Your task to perform on an android device: Go to CNN.com Image 0: 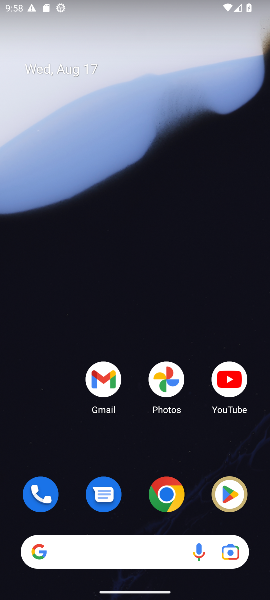
Step 0: drag from (154, 446) to (162, 28)
Your task to perform on an android device: Go to CNN.com Image 1: 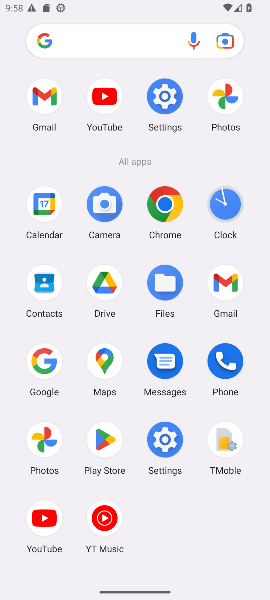
Step 1: click (168, 202)
Your task to perform on an android device: Go to CNN.com Image 2: 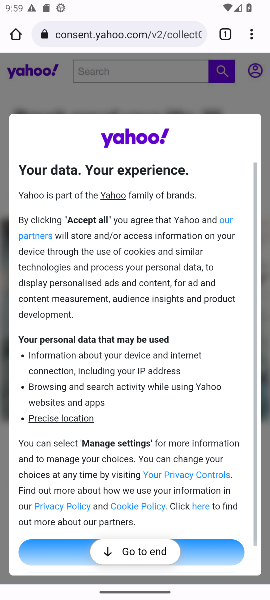
Step 2: drag from (134, 506) to (139, 169)
Your task to perform on an android device: Go to CNN.com Image 3: 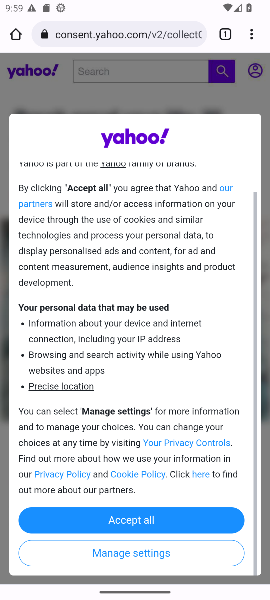
Step 3: click (148, 516)
Your task to perform on an android device: Go to CNN.com Image 4: 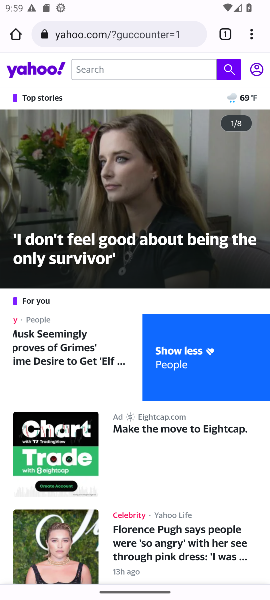
Step 4: click (98, 34)
Your task to perform on an android device: Go to CNN.com Image 5: 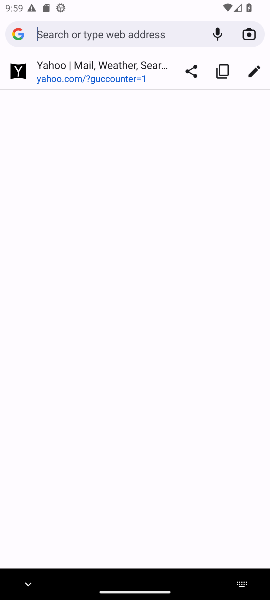
Step 5: type " CNN.com"
Your task to perform on an android device: Go to CNN.com Image 6: 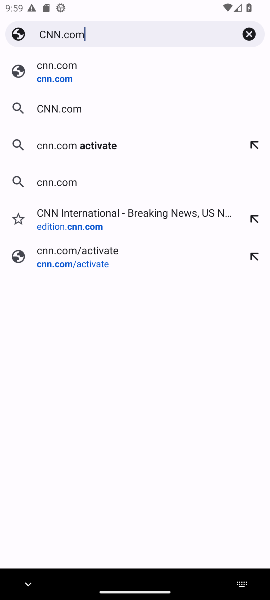
Step 6: click (53, 77)
Your task to perform on an android device: Go to CNN.com Image 7: 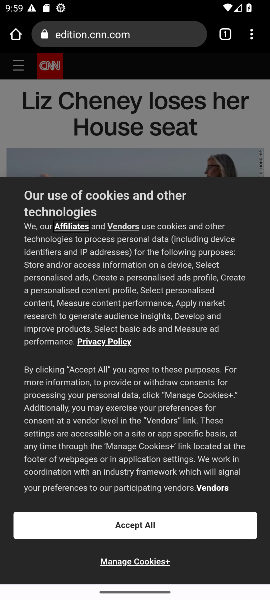
Step 7: click (112, 521)
Your task to perform on an android device: Go to CNN.com Image 8: 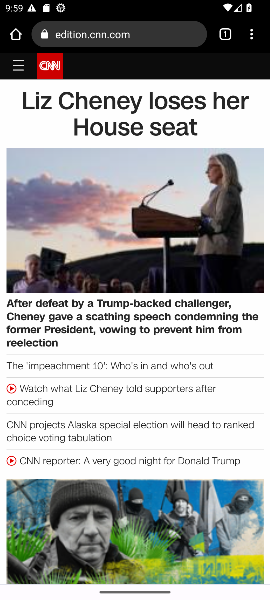
Step 8: task complete